Your task to perform on an android device: Open the contacts Image 0: 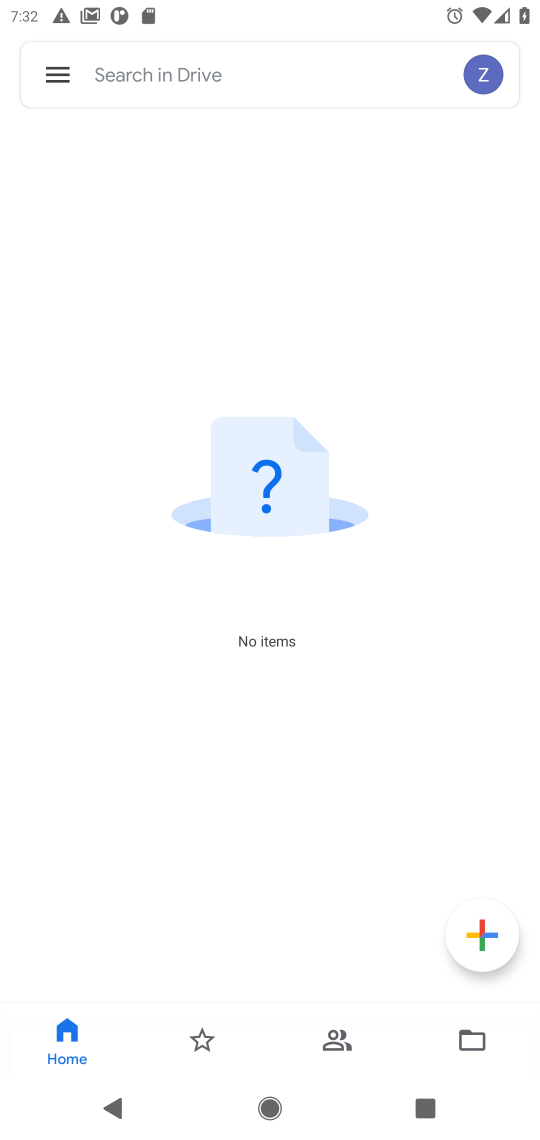
Step 0: press home button
Your task to perform on an android device: Open the contacts Image 1: 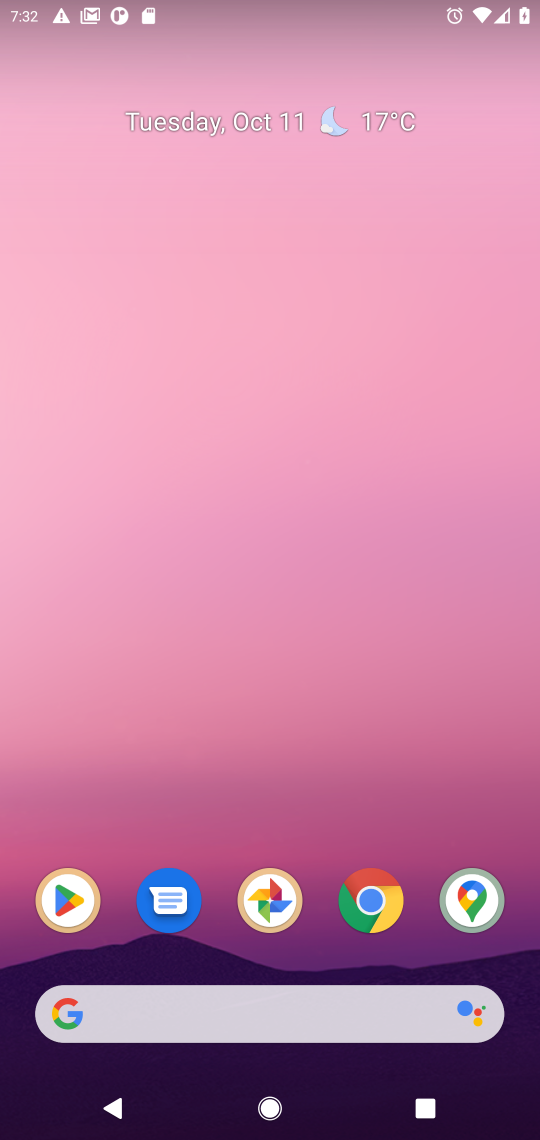
Step 1: drag from (353, 987) to (415, 222)
Your task to perform on an android device: Open the contacts Image 2: 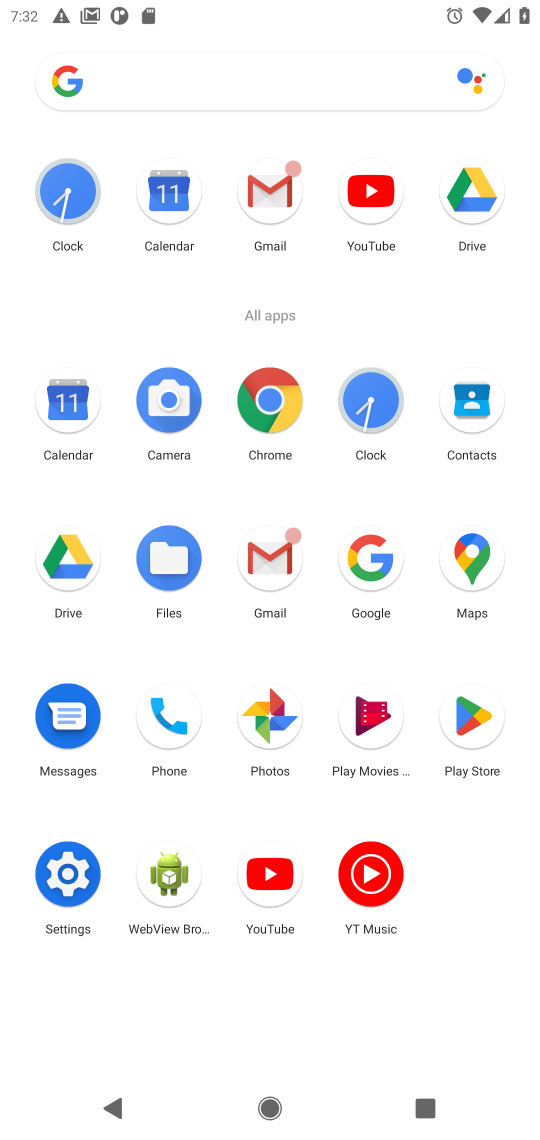
Step 2: click (476, 419)
Your task to perform on an android device: Open the contacts Image 3: 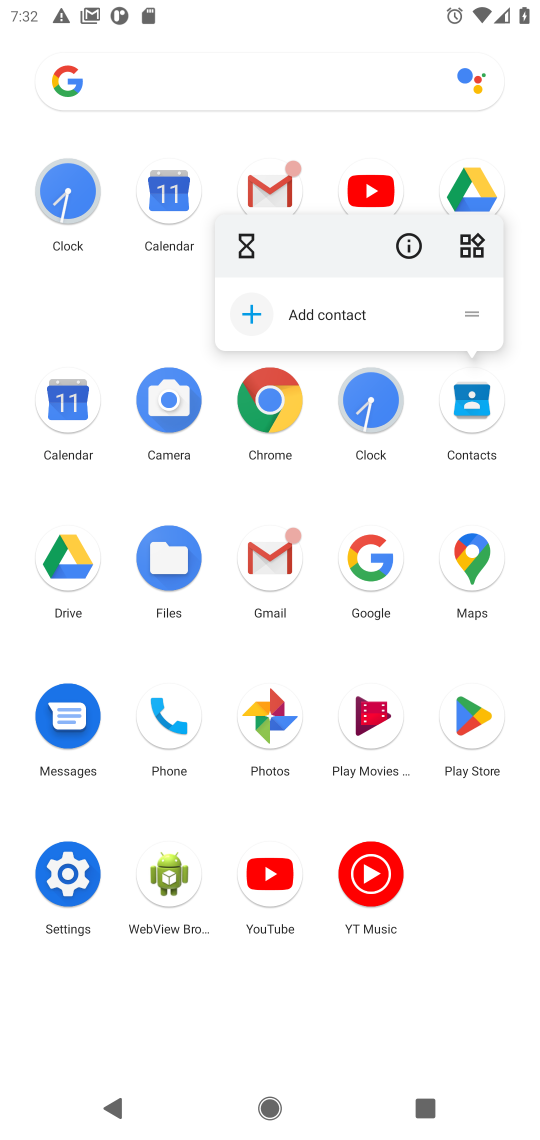
Step 3: click (471, 414)
Your task to perform on an android device: Open the contacts Image 4: 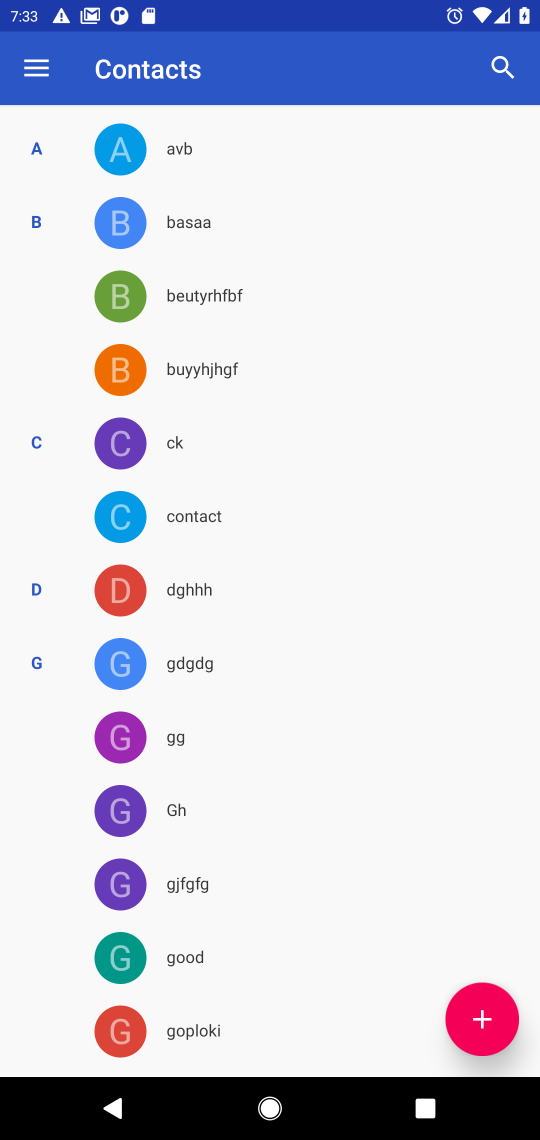
Step 4: task complete